Your task to perform on an android device: delete a single message in the gmail app Image 0: 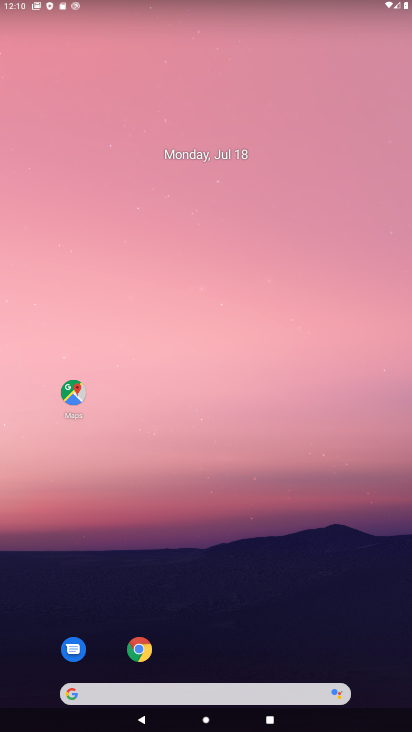
Step 0: drag from (377, 655) to (336, 163)
Your task to perform on an android device: delete a single message in the gmail app Image 1: 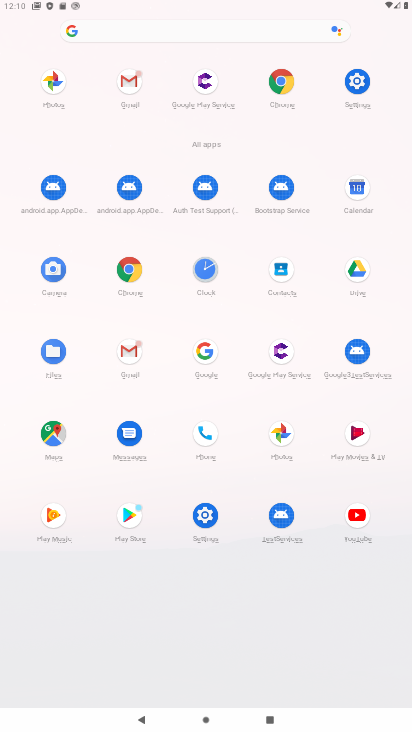
Step 1: click (128, 347)
Your task to perform on an android device: delete a single message in the gmail app Image 2: 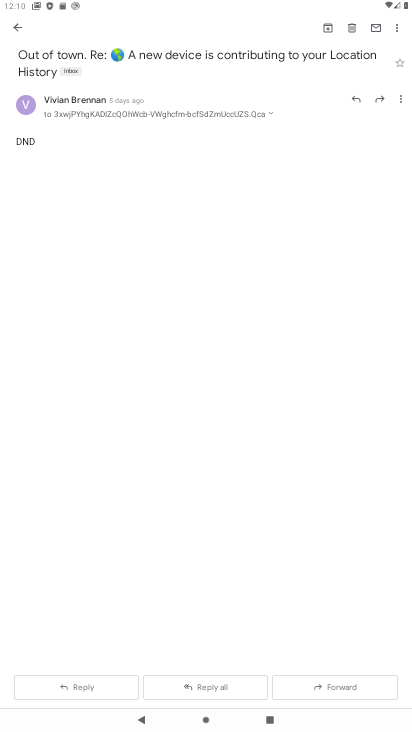
Step 2: click (348, 29)
Your task to perform on an android device: delete a single message in the gmail app Image 3: 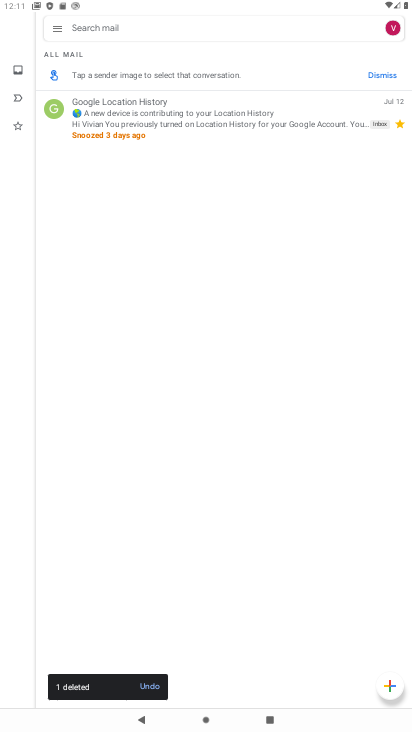
Step 3: task complete